Your task to perform on an android device: show emergency info Image 0: 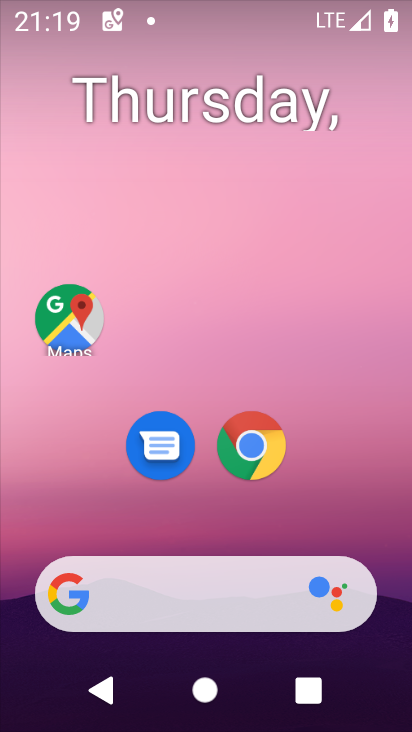
Step 0: drag from (161, 544) to (218, 105)
Your task to perform on an android device: show emergency info Image 1: 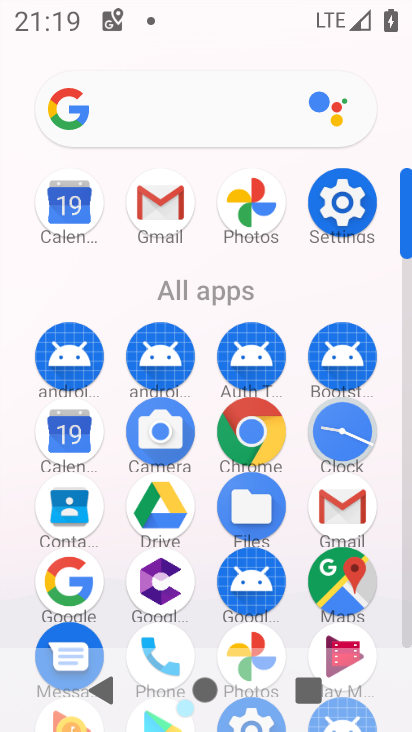
Step 1: click (330, 214)
Your task to perform on an android device: show emergency info Image 2: 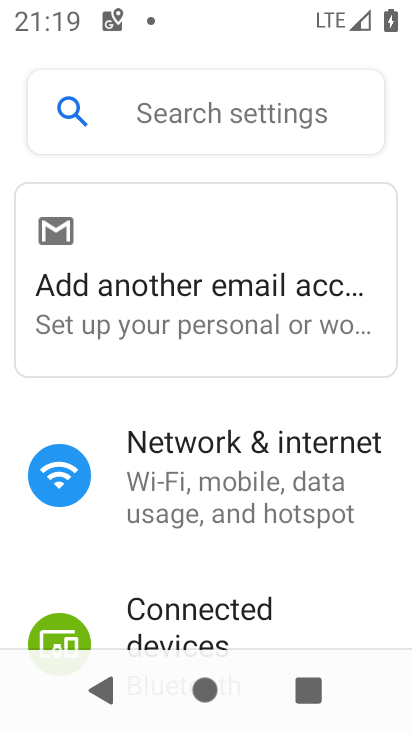
Step 2: drag from (242, 597) to (332, 97)
Your task to perform on an android device: show emergency info Image 3: 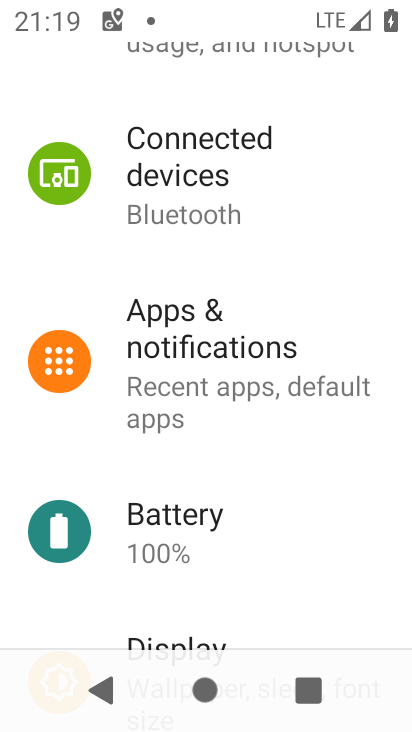
Step 3: drag from (240, 576) to (304, 75)
Your task to perform on an android device: show emergency info Image 4: 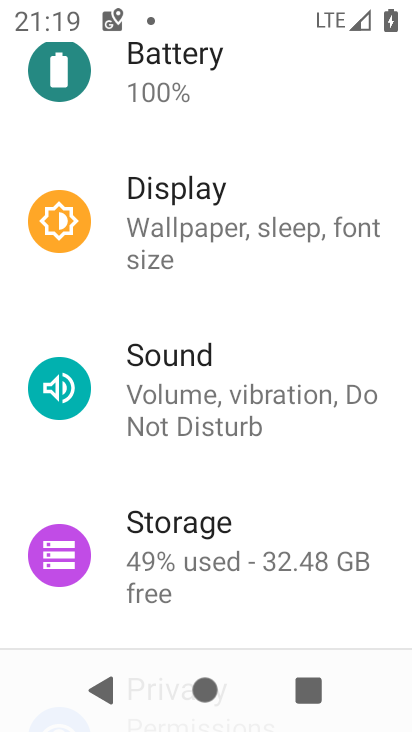
Step 4: drag from (218, 611) to (283, 239)
Your task to perform on an android device: show emergency info Image 5: 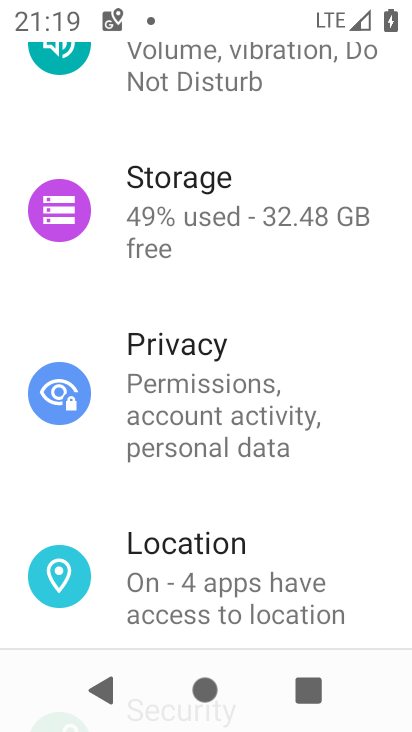
Step 5: drag from (251, 601) to (364, 92)
Your task to perform on an android device: show emergency info Image 6: 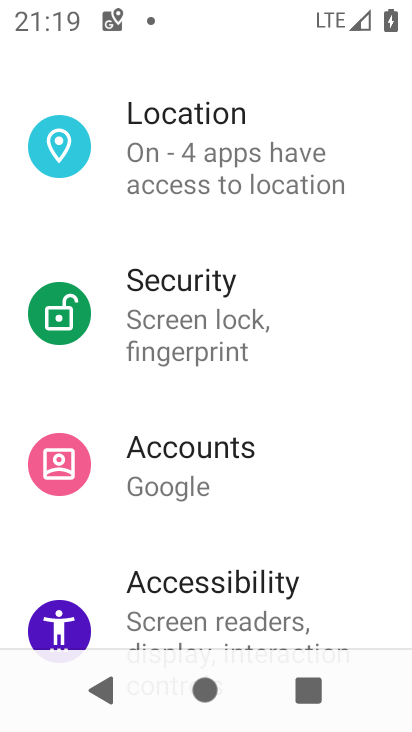
Step 6: drag from (252, 604) to (344, 83)
Your task to perform on an android device: show emergency info Image 7: 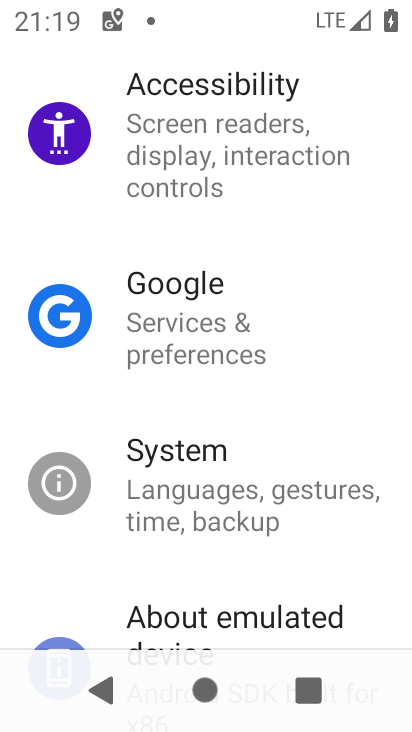
Step 7: drag from (240, 555) to (250, 11)
Your task to perform on an android device: show emergency info Image 8: 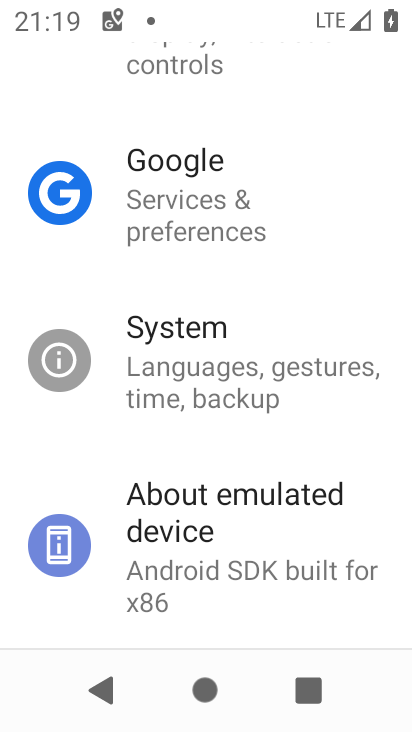
Step 8: click (216, 523)
Your task to perform on an android device: show emergency info Image 9: 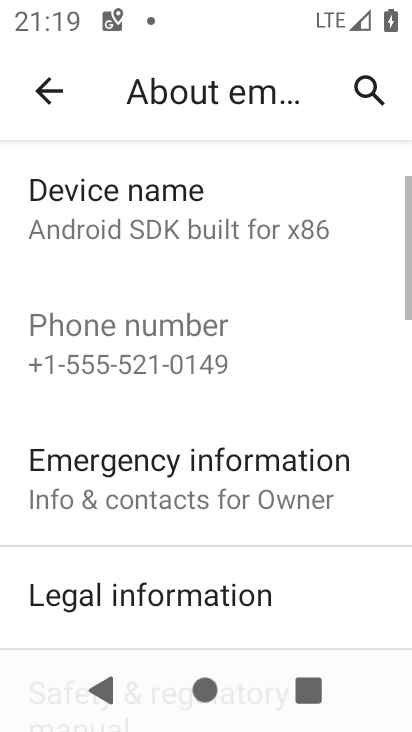
Step 9: click (221, 500)
Your task to perform on an android device: show emergency info Image 10: 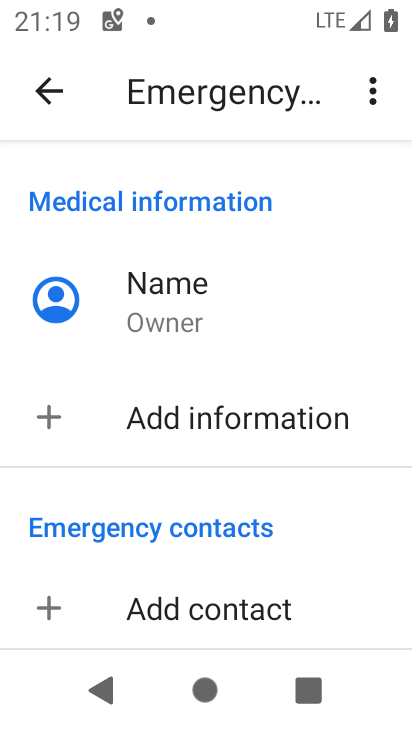
Step 10: task complete